Your task to perform on an android device: Open calendar and show me the fourth week of next month Image 0: 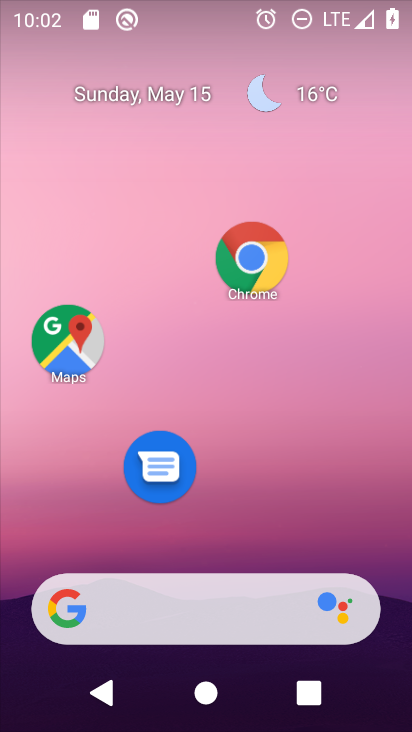
Step 0: click (188, 79)
Your task to perform on an android device: Open calendar and show me the fourth week of next month Image 1: 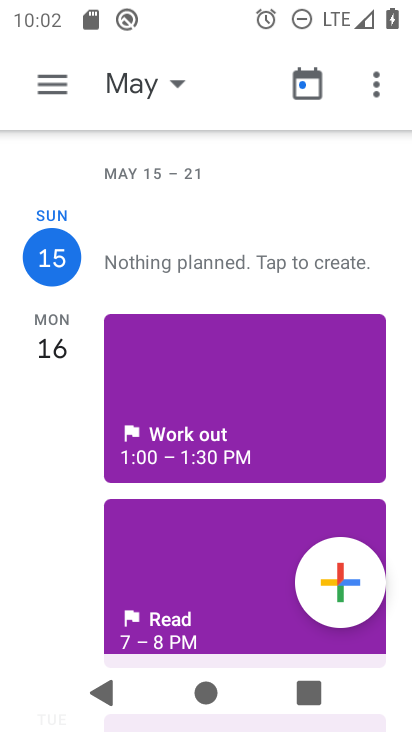
Step 1: click (188, 79)
Your task to perform on an android device: Open calendar and show me the fourth week of next month Image 2: 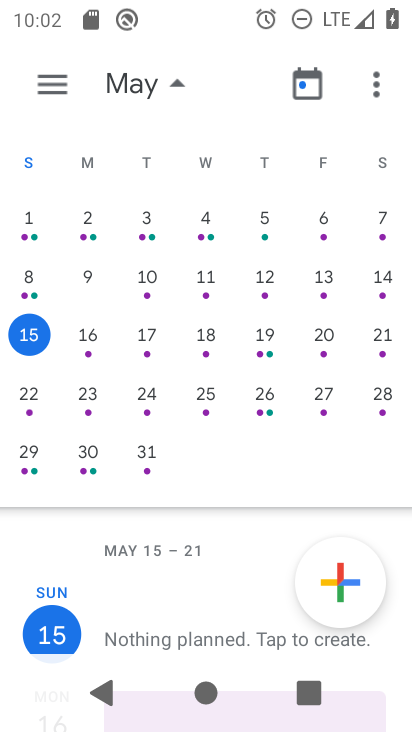
Step 2: drag from (337, 462) to (49, 446)
Your task to perform on an android device: Open calendar and show me the fourth week of next month Image 3: 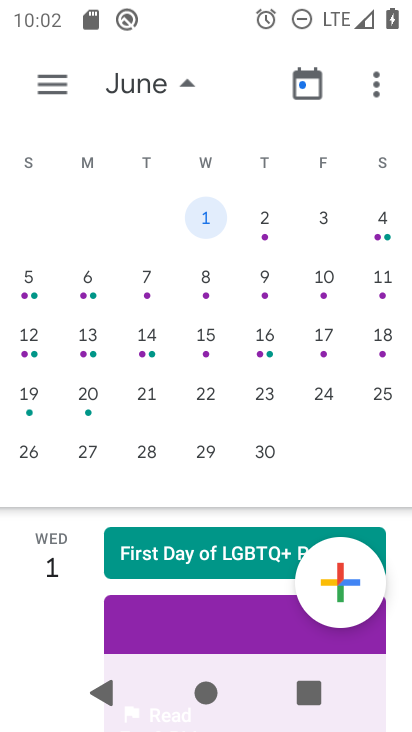
Step 3: click (204, 385)
Your task to perform on an android device: Open calendar and show me the fourth week of next month Image 4: 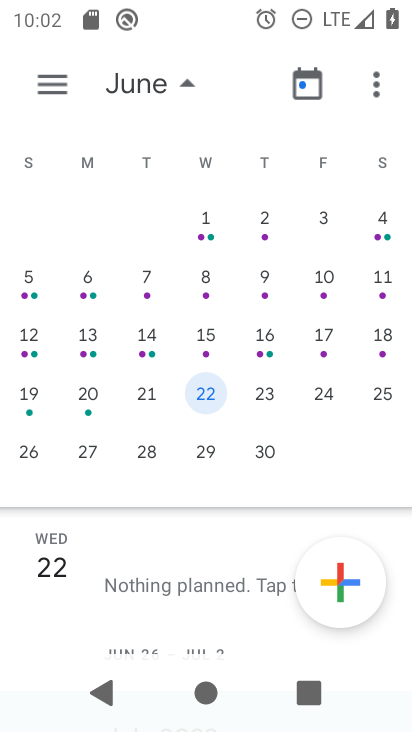
Step 4: task complete